Your task to perform on an android device: Show me popular videos on Youtube Image 0: 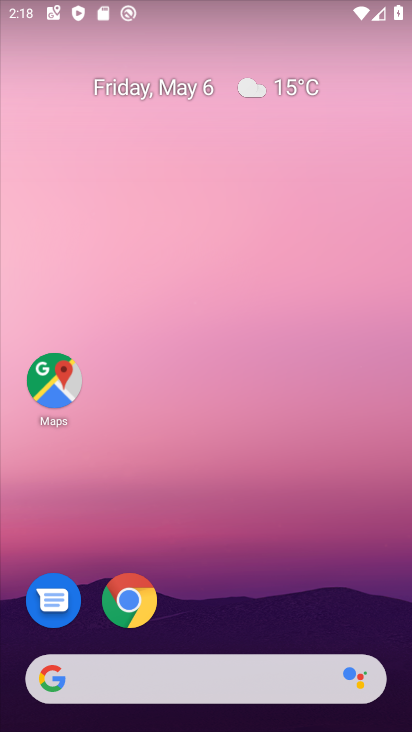
Step 0: drag from (296, 585) to (264, 31)
Your task to perform on an android device: Show me popular videos on Youtube Image 1: 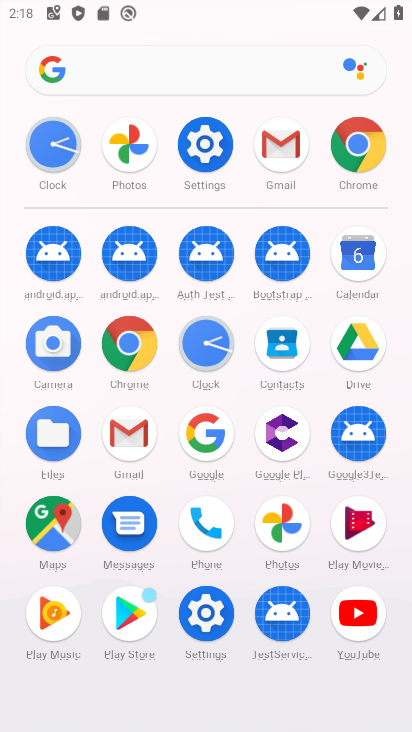
Step 1: click (353, 614)
Your task to perform on an android device: Show me popular videos on Youtube Image 2: 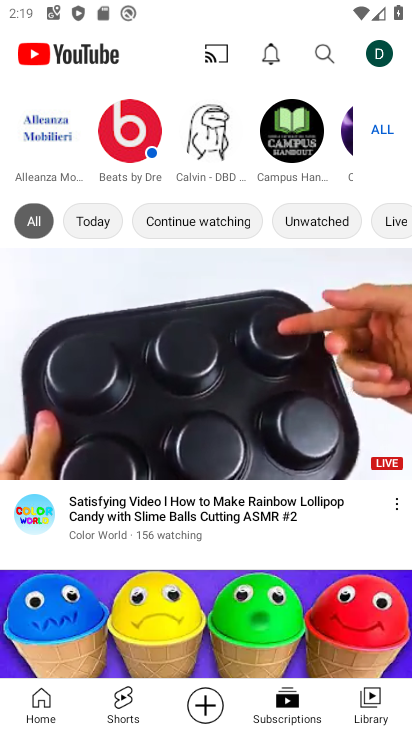
Step 2: click (375, 705)
Your task to perform on an android device: Show me popular videos on Youtube Image 3: 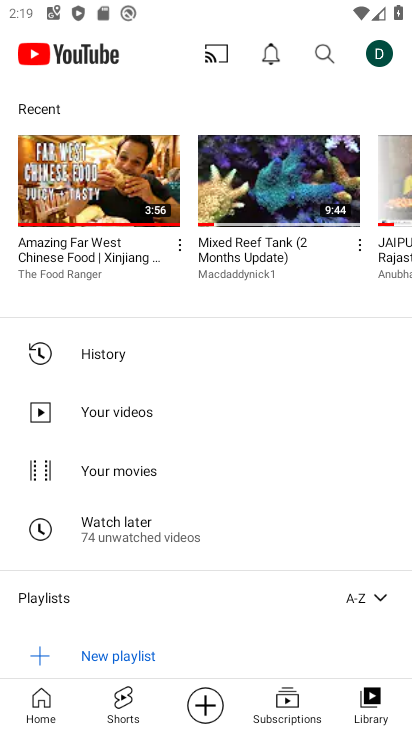
Step 3: task complete